Your task to perform on an android device: turn off javascript in the chrome app Image 0: 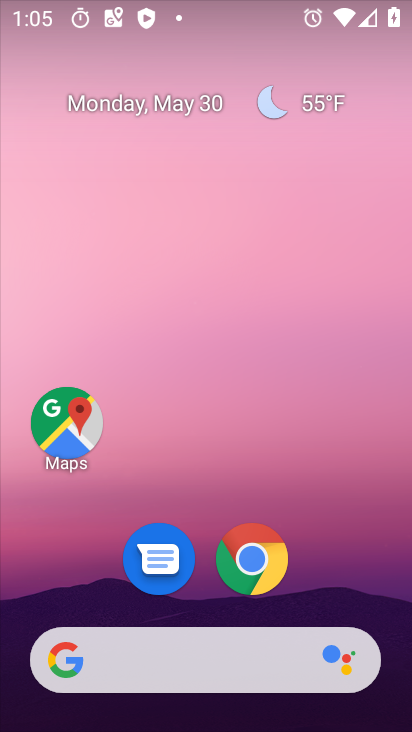
Step 0: click (255, 550)
Your task to perform on an android device: turn off javascript in the chrome app Image 1: 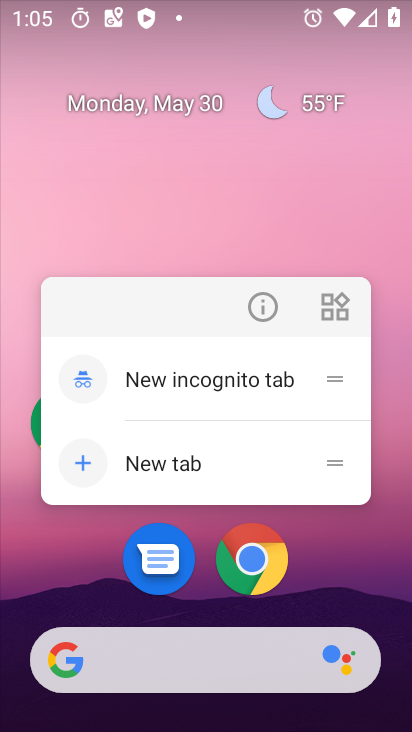
Step 1: click (244, 561)
Your task to perform on an android device: turn off javascript in the chrome app Image 2: 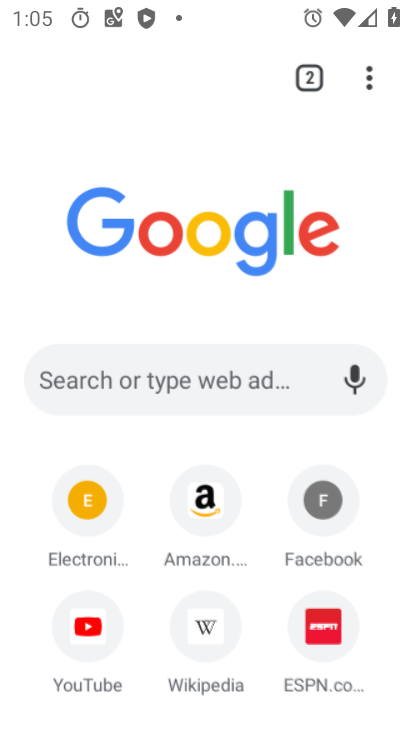
Step 2: drag from (365, 80) to (99, 612)
Your task to perform on an android device: turn off javascript in the chrome app Image 3: 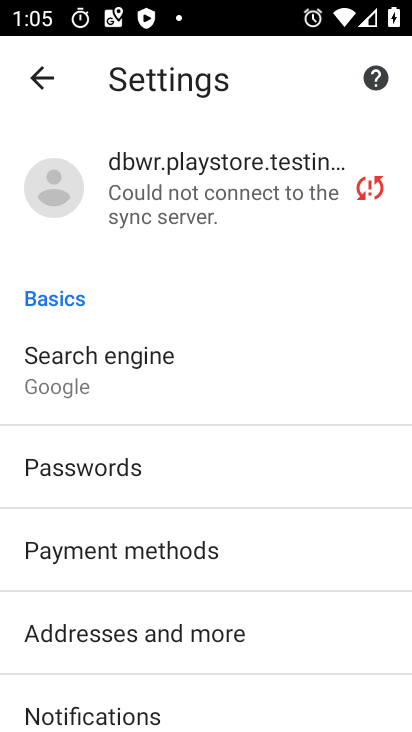
Step 3: drag from (130, 669) to (272, 154)
Your task to perform on an android device: turn off javascript in the chrome app Image 4: 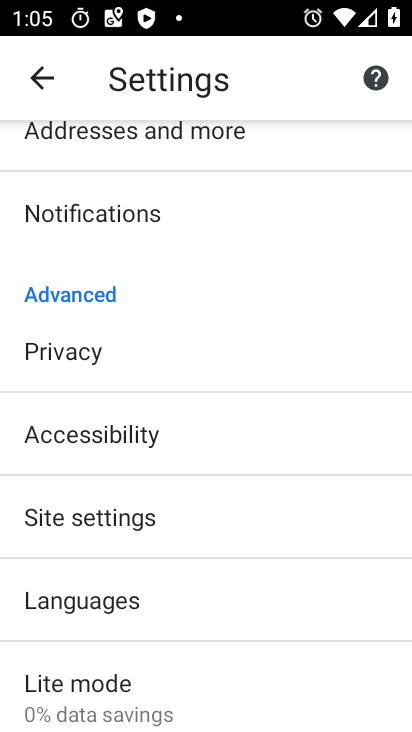
Step 4: click (114, 515)
Your task to perform on an android device: turn off javascript in the chrome app Image 5: 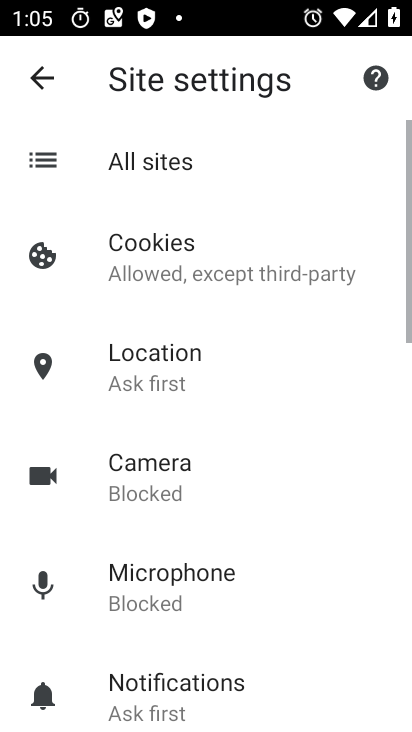
Step 5: drag from (193, 626) to (267, 115)
Your task to perform on an android device: turn off javascript in the chrome app Image 6: 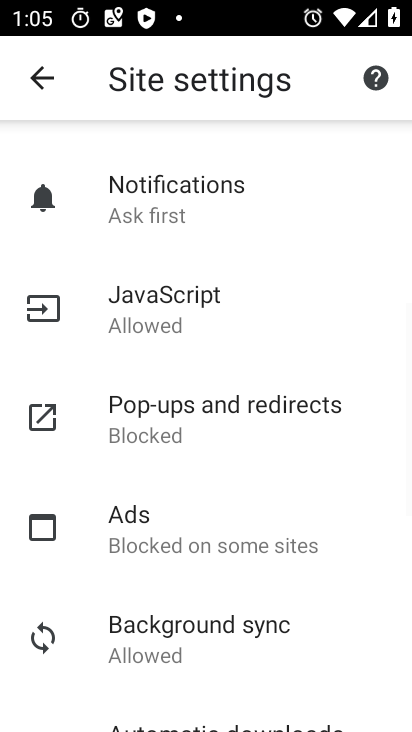
Step 6: click (163, 310)
Your task to perform on an android device: turn off javascript in the chrome app Image 7: 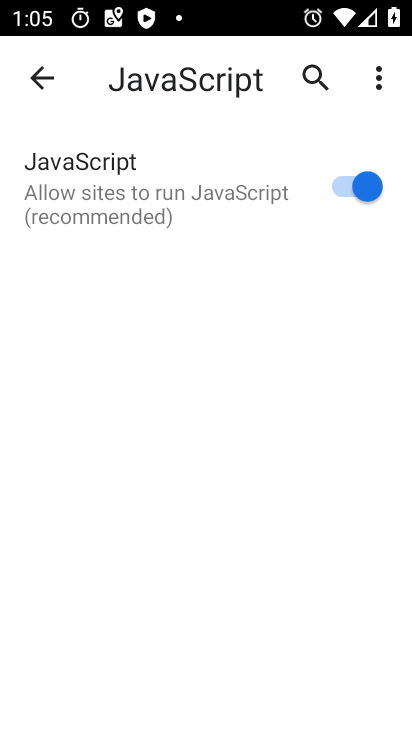
Step 7: click (367, 173)
Your task to perform on an android device: turn off javascript in the chrome app Image 8: 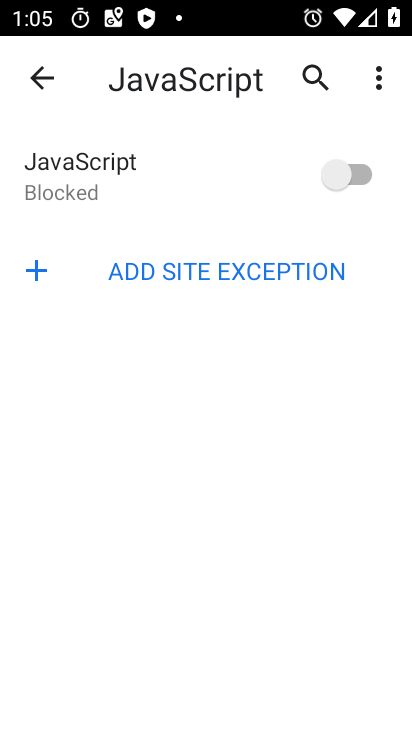
Step 8: task complete